Your task to perform on an android device: Open display settings Image 0: 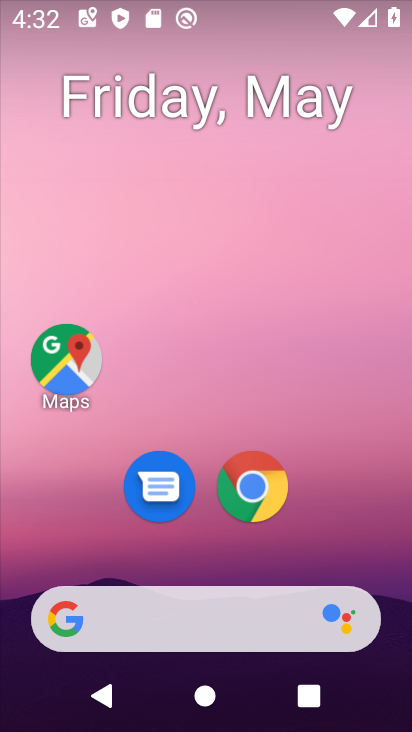
Step 0: drag from (331, 534) to (165, 6)
Your task to perform on an android device: Open display settings Image 1: 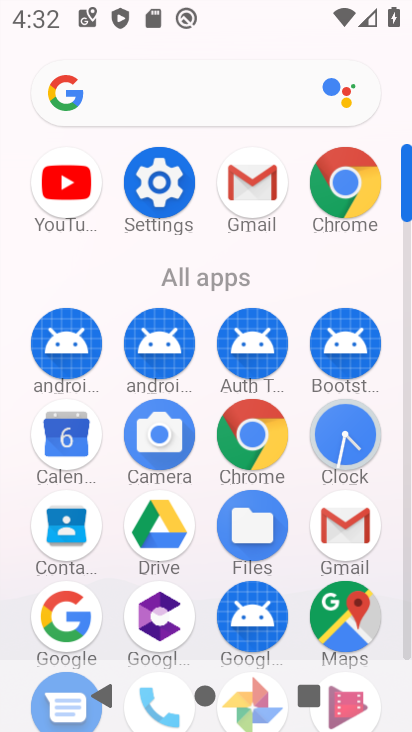
Step 1: drag from (18, 534) to (26, 115)
Your task to perform on an android device: Open display settings Image 2: 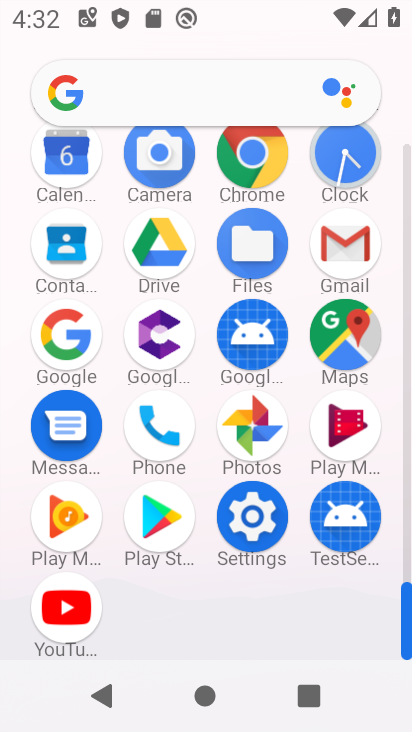
Step 2: drag from (6, 488) to (23, 143)
Your task to perform on an android device: Open display settings Image 3: 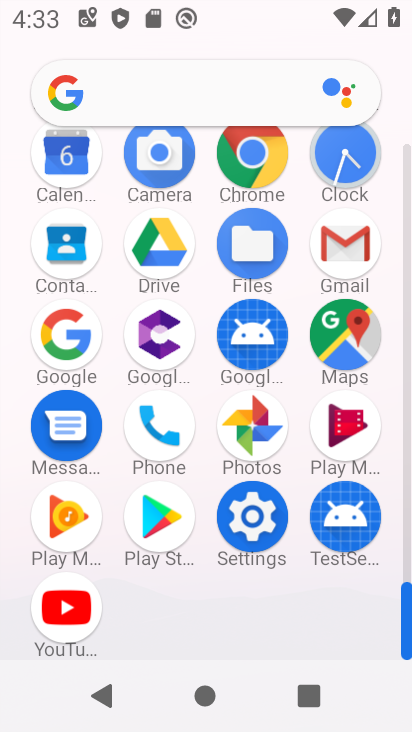
Step 3: click (254, 516)
Your task to perform on an android device: Open display settings Image 4: 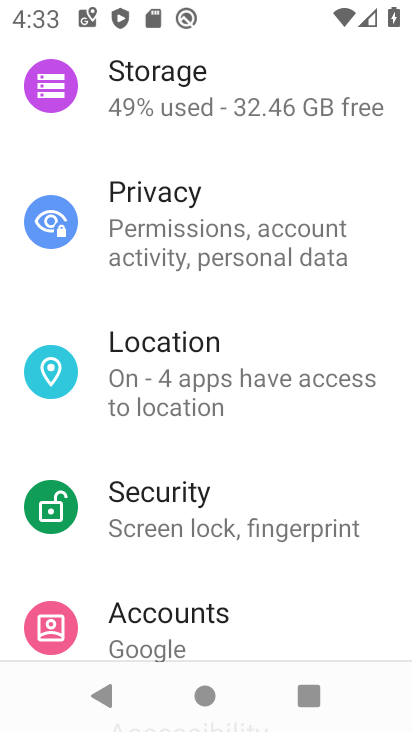
Step 4: drag from (322, 142) to (331, 573)
Your task to perform on an android device: Open display settings Image 5: 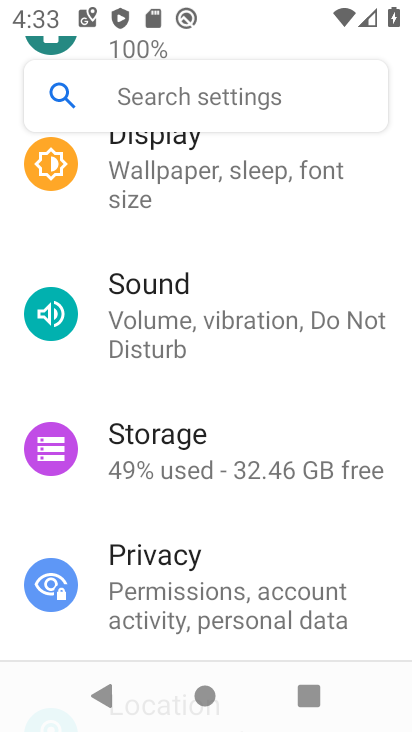
Step 5: drag from (321, 214) to (328, 481)
Your task to perform on an android device: Open display settings Image 6: 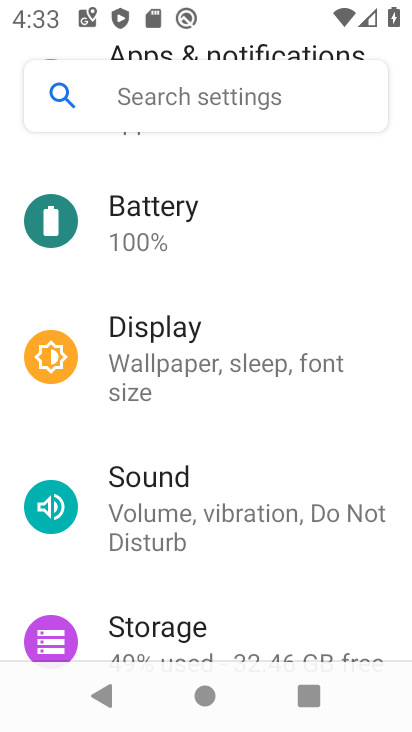
Step 6: click (256, 357)
Your task to perform on an android device: Open display settings Image 7: 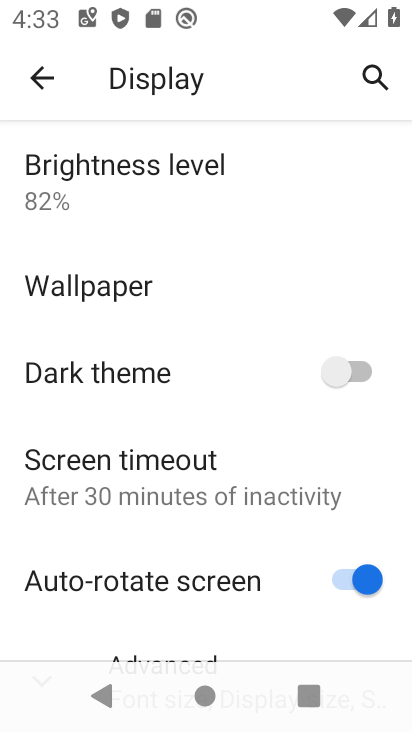
Step 7: drag from (191, 497) to (240, 118)
Your task to perform on an android device: Open display settings Image 8: 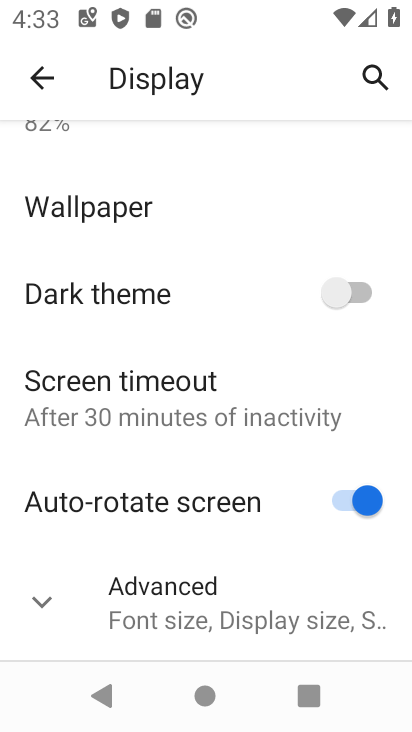
Step 8: drag from (180, 546) to (191, 100)
Your task to perform on an android device: Open display settings Image 9: 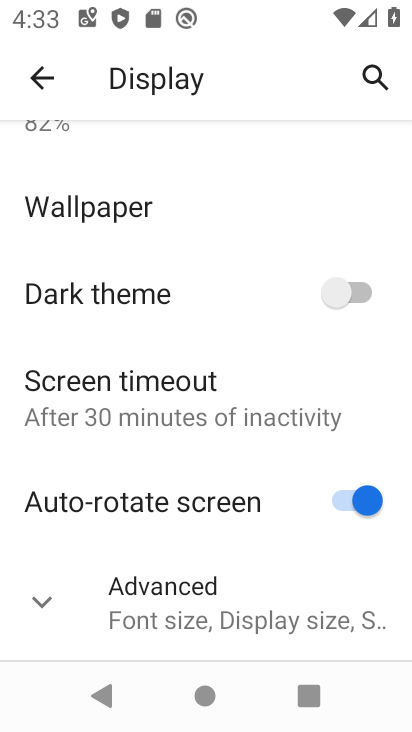
Step 9: click (41, 605)
Your task to perform on an android device: Open display settings Image 10: 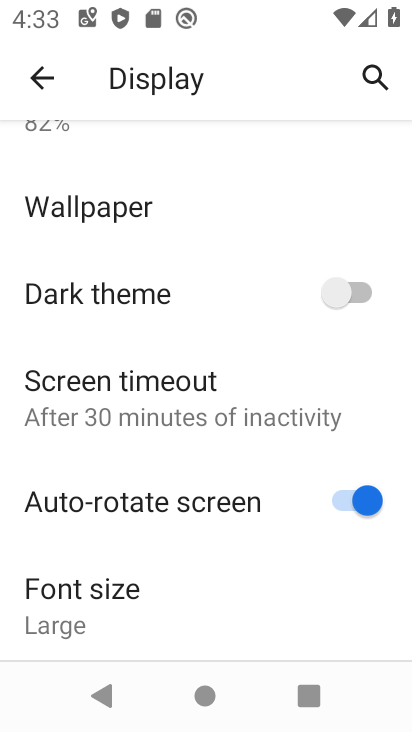
Step 10: task complete